Your task to perform on an android device: set an alarm Image 0: 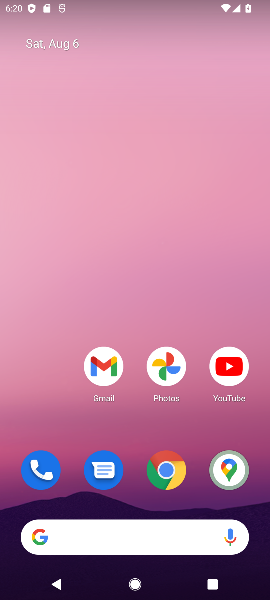
Step 0: drag from (135, 489) to (174, 45)
Your task to perform on an android device: set an alarm Image 1: 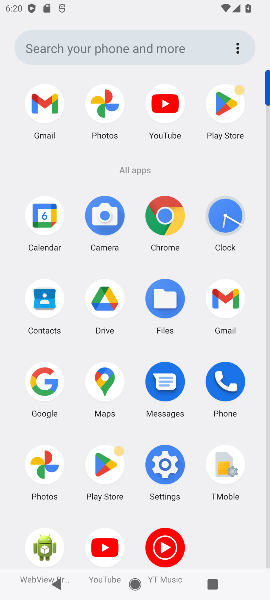
Step 1: click (223, 208)
Your task to perform on an android device: set an alarm Image 2: 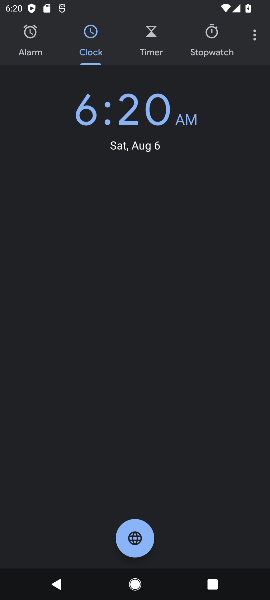
Step 2: click (35, 35)
Your task to perform on an android device: set an alarm Image 3: 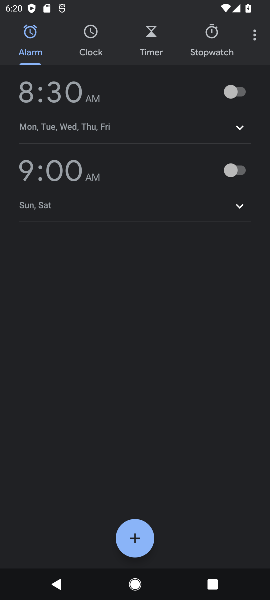
Step 3: click (138, 101)
Your task to perform on an android device: set an alarm Image 4: 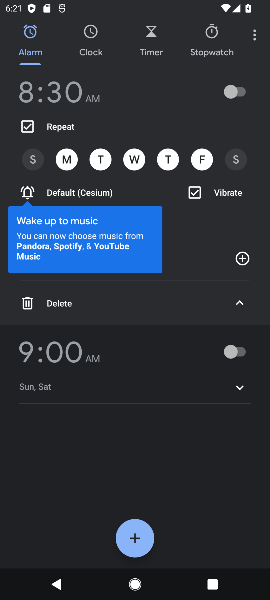
Step 4: click (240, 96)
Your task to perform on an android device: set an alarm Image 5: 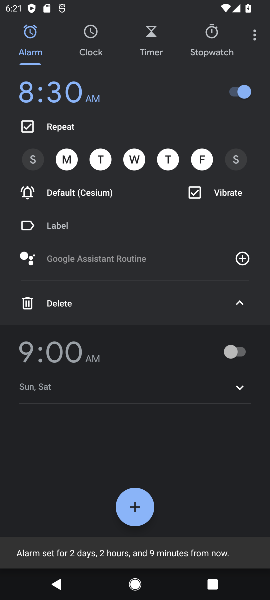
Step 5: task complete